Your task to perform on an android device: open wifi settings Image 0: 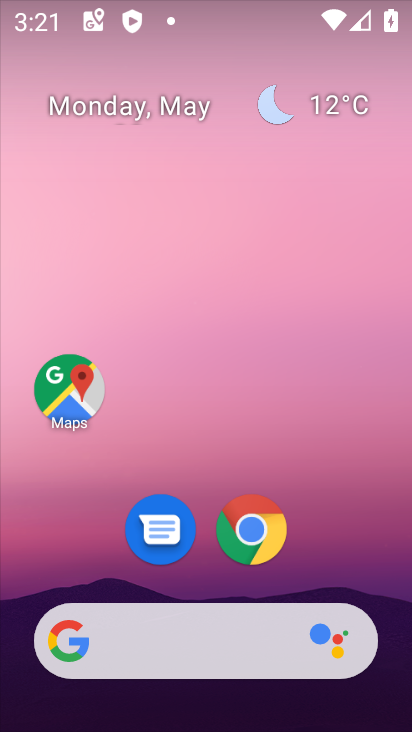
Step 0: drag from (339, 417) to (347, 40)
Your task to perform on an android device: open wifi settings Image 1: 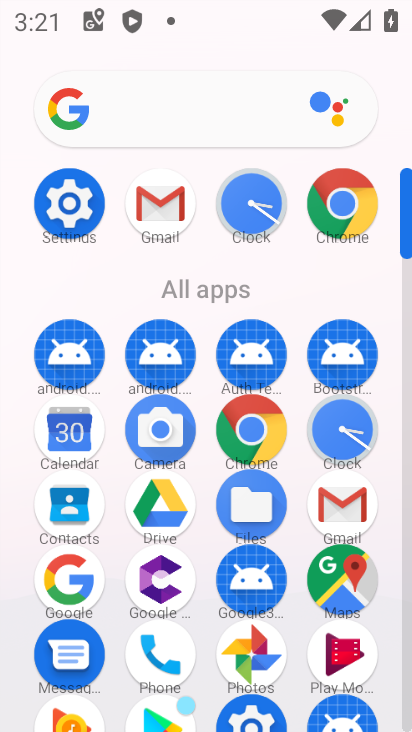
Step 1: click (51, 199)
Your task to perform on an android device: open wifi settings Image 2: 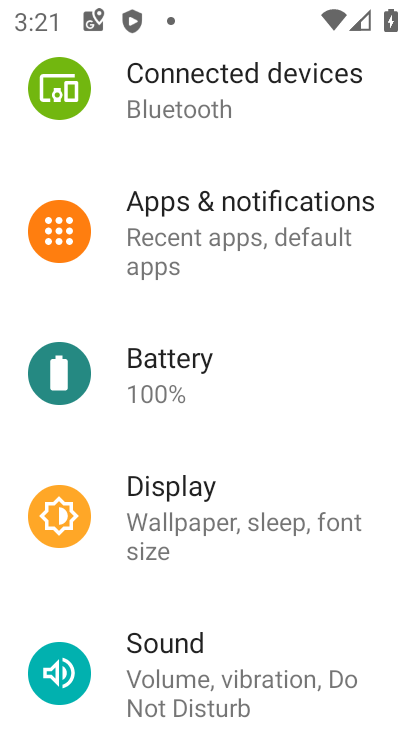
Step 2: drag from (277, 170) to (298, 558)
Your task to perform on an android device: open wifi settings Image 3: 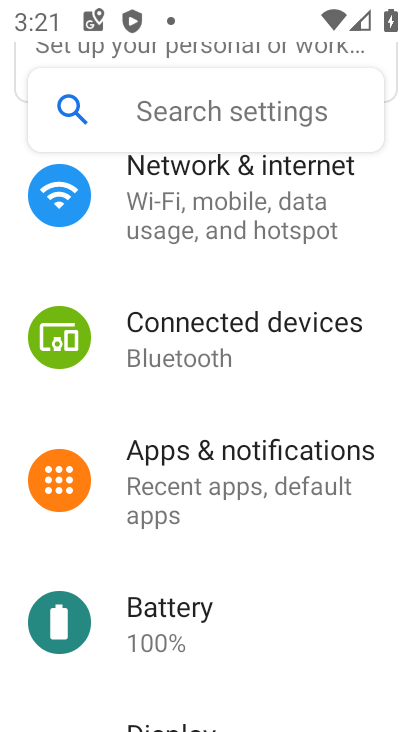
Step 3: click (240, 201)
Your task to perform on an android device: open wifi settings Image 4: 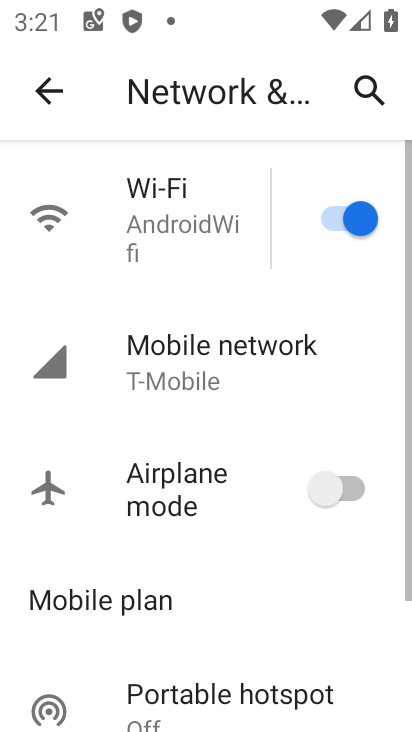
Step 4: click (175, 225)
Your task to perform on an android device: open wifi settings Image 5: 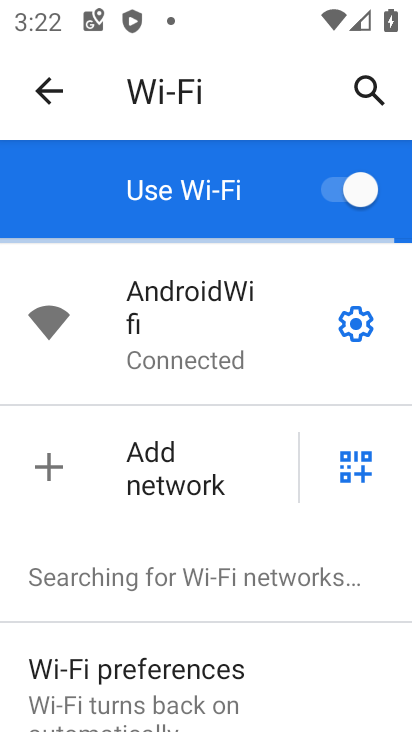
Step 5: task complete